Your task to perform on an android device: Go to Reddit.com Image 0: 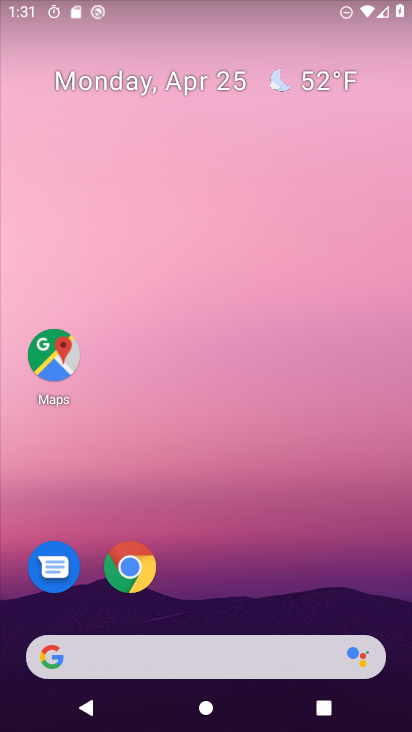
Step 0: click (238, 662)
Your task to perform on an android device: Go to Reddit.com Image 1: 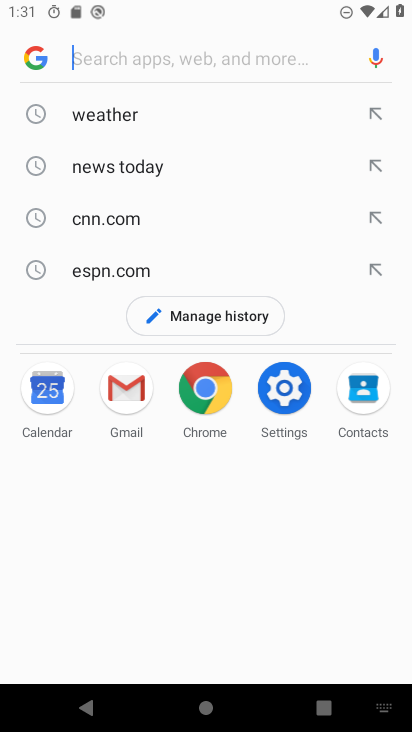
Step 1: type "reddit.com"
Your task to perform on an android device: Go to Reddit.com Image 2: 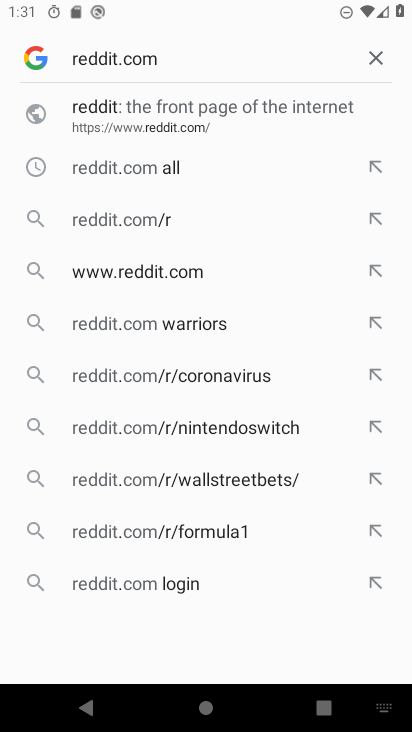
Step 2: click (261, 100)
Your task to perform on an android device: Go to Reddit.com Image 3: 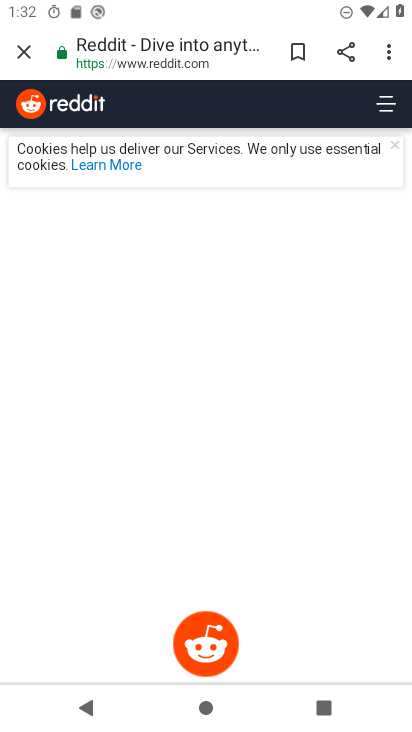
Step 3: task complete